Your task to perform on an android device: snooze an email in the gmail app Image 0: 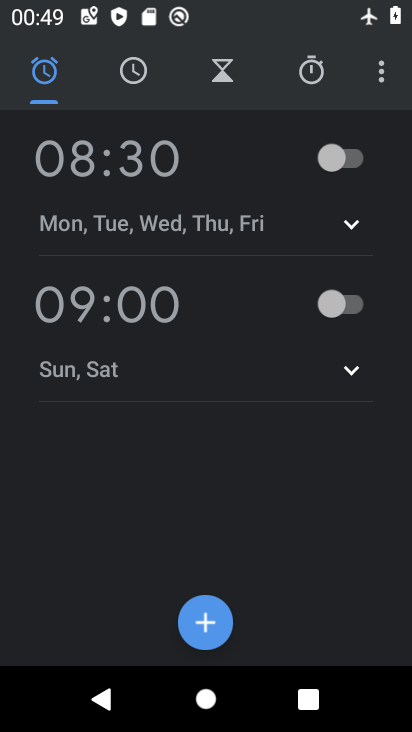
Step 0: press home button
Your task to perform on an android device: snooze an email in the gmail app Image 1: 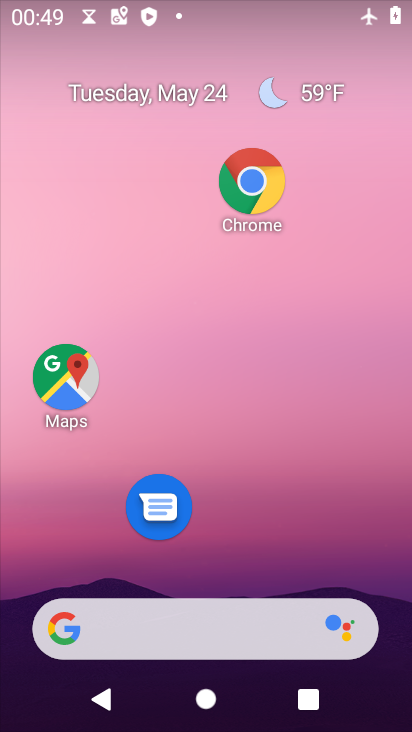
Step 1: drag from (267, 556) to (337, 216)
Your task to perform on an android device: snooze an email in the gmail app Image 2: 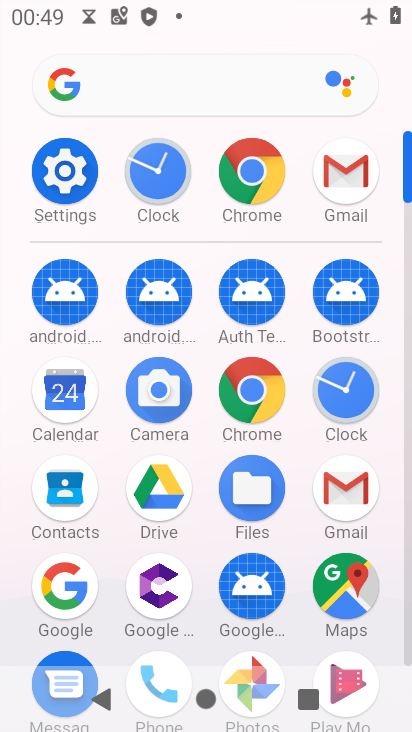
Step 2: click (334, 487)
Your task to perform on an android device: snooze an email in the gmail app Image 3: 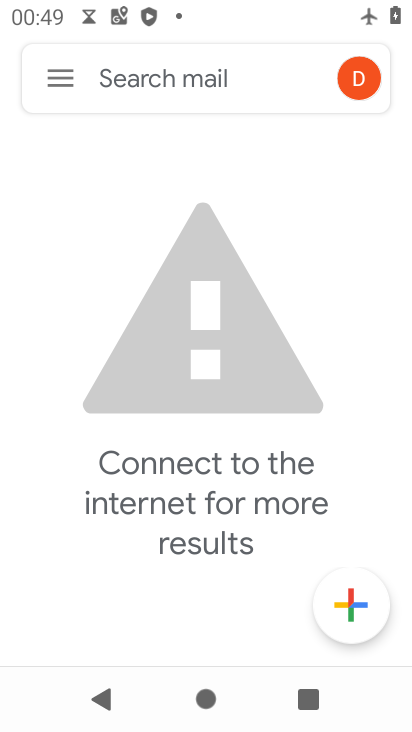
Step 3: click (46, 75)
Your task to perform on an android device: snooze an email in the gmail app Image 4: 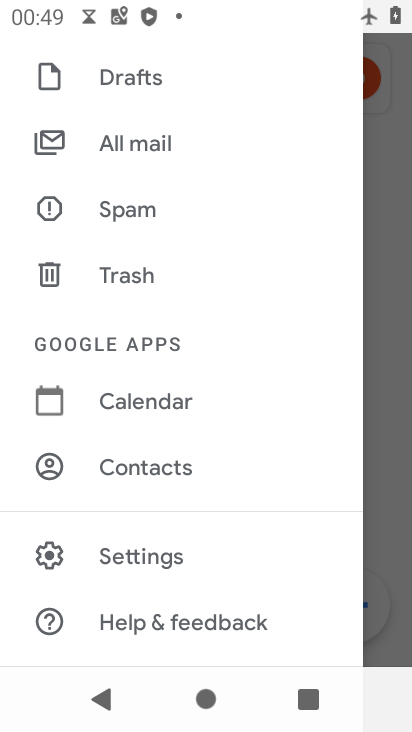
Step 4: drag from (176, 194) to (244, 623)
Your task to perform on an android device: snooze an email in the gmail app Image 5: 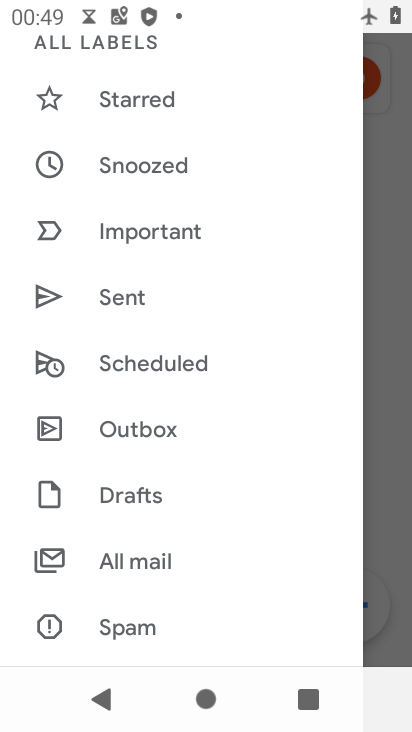
Step 5: click (149, 183)
Your task to perform on an android device: snooze an email in the gmail app Image 6: 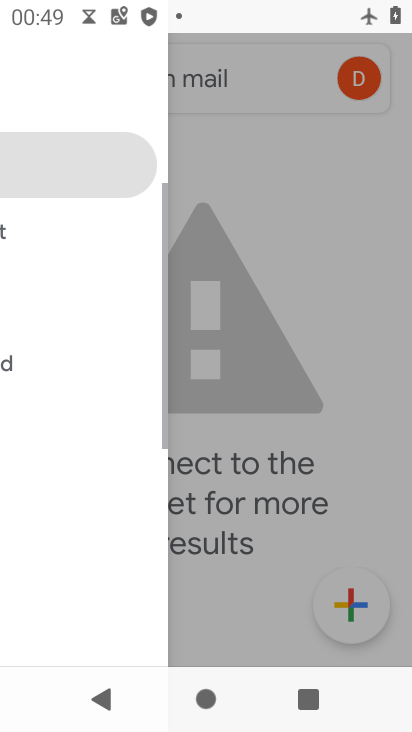
Step 6: click (147, 177)
Your task to perform on an android device: snooze an email in the gmail app Image 7: 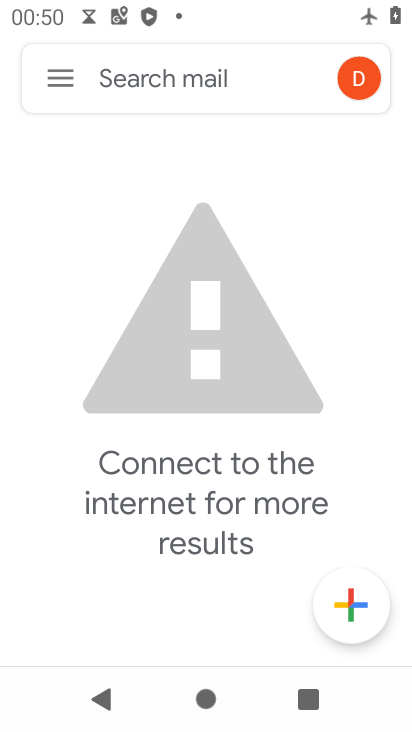
Step 7: task complete